Your task to perform on an android device: toggle location history Image 0: 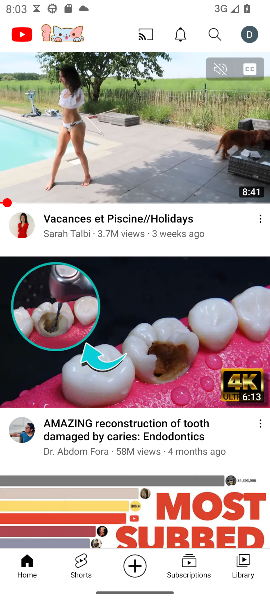
Step 0: press home button
Your task to perform on an android device: toggle location history Image 1: 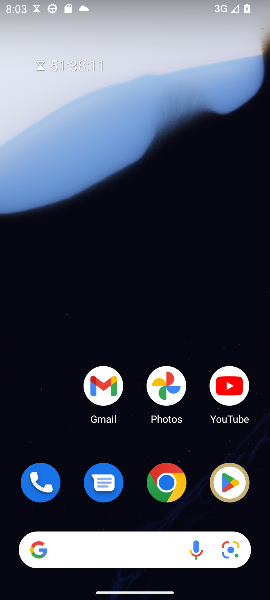
Step 1: drag from (102, 478) to (87, 90)
Your task to perform on an android device: toggle location history Image 2: 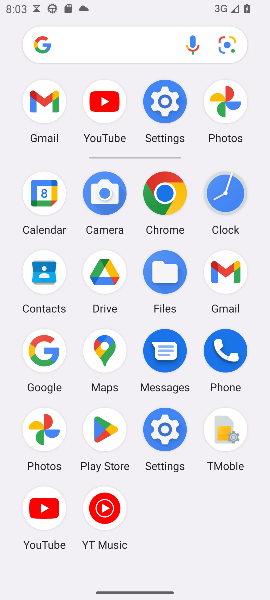
Step 2: click (166, 111)
Your task to perform on an android device: toggle location history Image 3: 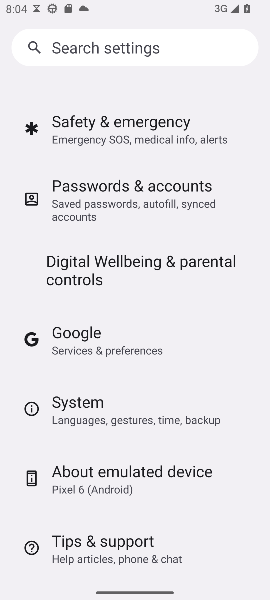
Step 3: drag from (96, 406) to (96, 133)
Your task to perform on an android device: toggle location history Image 4: 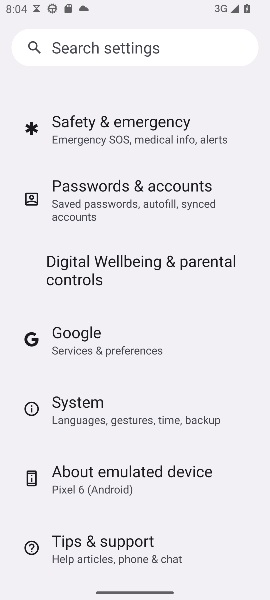
Step 4: drag from (134, 179) to (52, 535)
Your task to perform on an android device: toggle location history Image 5: 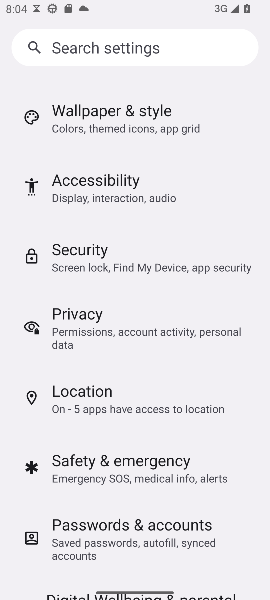
Step 5: click (85, 396)
Your task to perform on an android device: toggle location history Image 6: 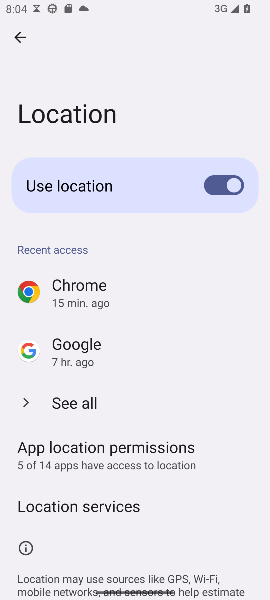
Step 6: task complete